Your task to perform on an android device: turn on javascript in the chrome app Image 0: 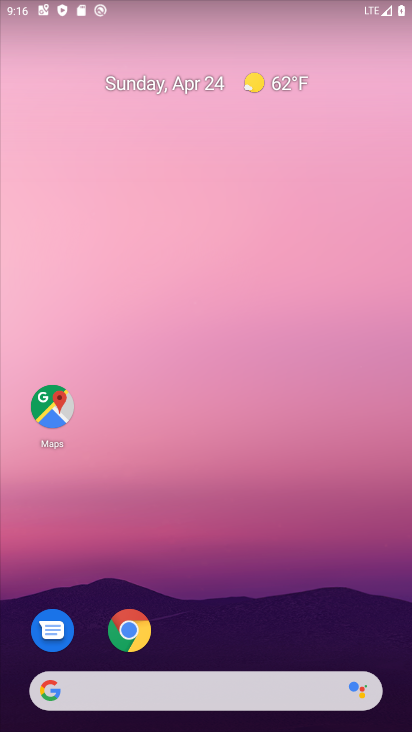
Step 0: drag from (316, 584) to (257, 51)
Your task to perform on an android device: turn on javascript in the chrome app Image 1: 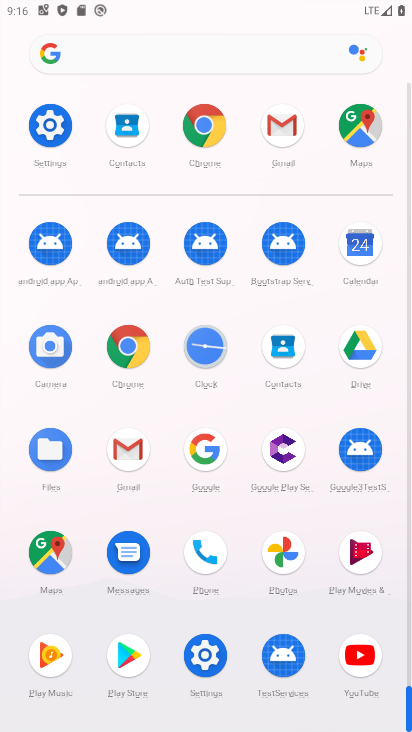
Step 1: drag from (5, 569) to (12, 303)
Your task to perform on an android device: turn on javascript in the chrome app Image 2: 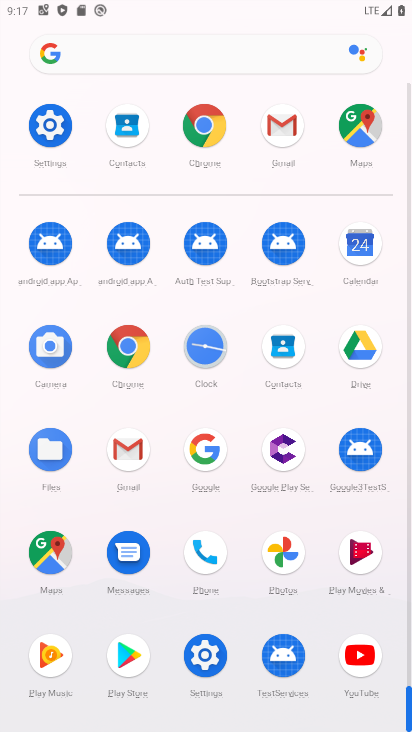
Step 2: click (200, 126)
Your task to perform on an android device: turn on javascript in the chrome app Image 3: 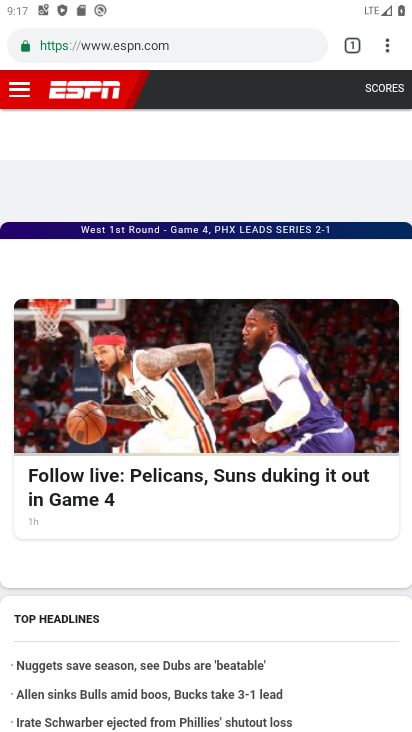
Step 3: drag from (388, 55) to (215, 596)
Your task to perform on an android device: turn on javascript in the chrome app Image 4: 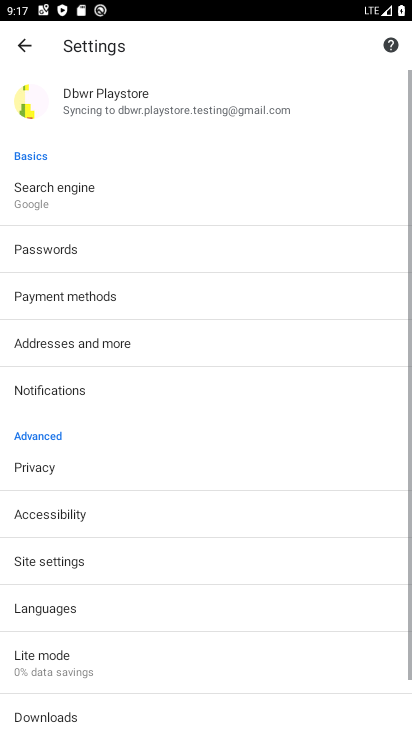
Step 4: drag from (255, 592) to (267, 205)
Your task to perform on an android device: turn on javascript in the chrome app Image 5: 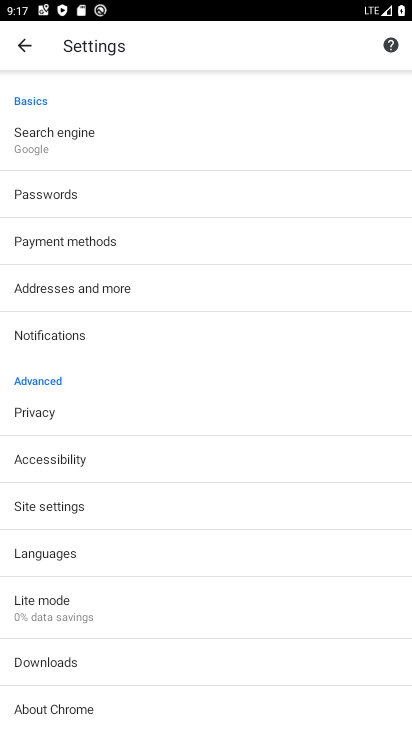
Step 5: drag from (156, 558) to (237, 117)
Your task to perform on an android device: turn on javascript in the chrome app Image 6: 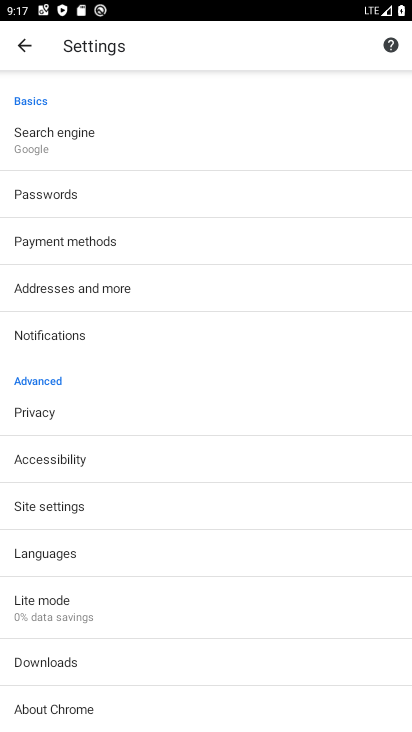
Step 6: click (74, 504)
Your task to perform on an android device: turn on javascript in the chrome app Image 7: 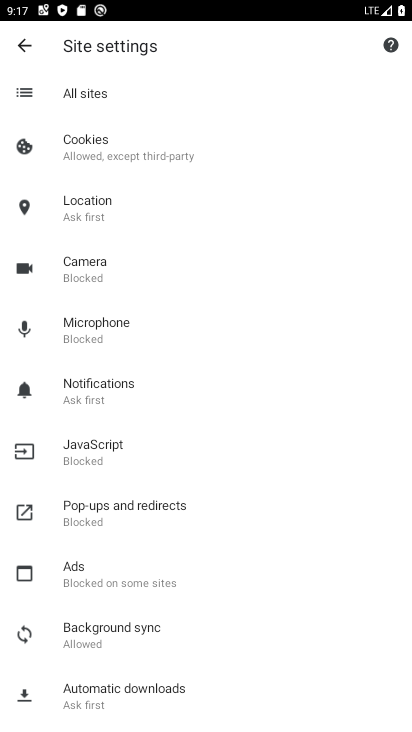
Step 7: drag from (288, 580) to (300, 171)
Your task to perform on an android device: turn on javascript in the chrome app Image 8: 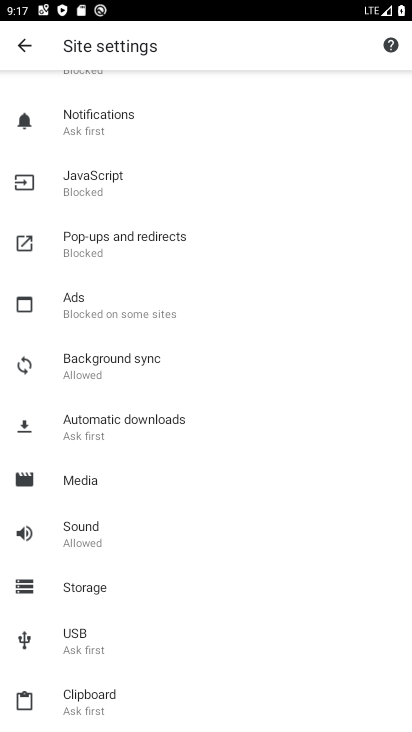
Step 8: click (145, 173)
Your task to perform on an android device: turn on javascript in the chrome app Image 9: 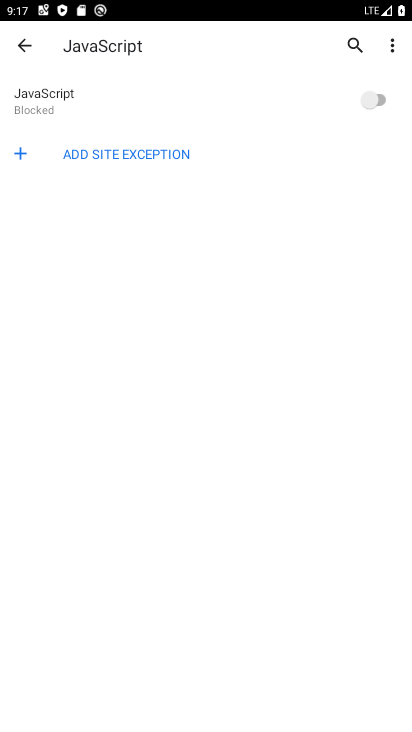
Step 9: click (384, 110)
Your task to perform on an android device: turn on javascript in the chrome app Image 10: 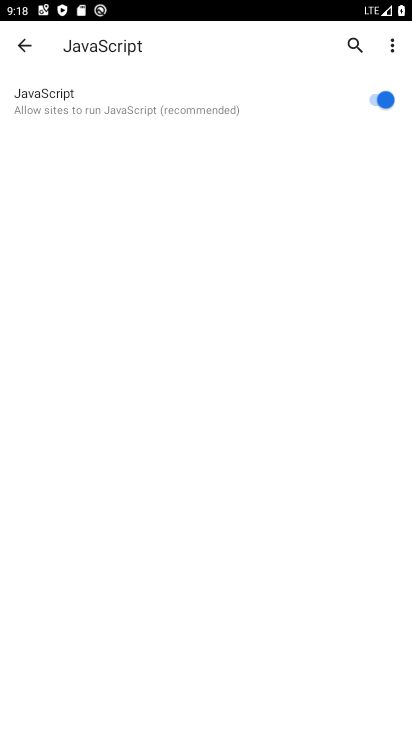
Step 10: task complete